Your task to perform on an android device: Go to eBay Image 0: 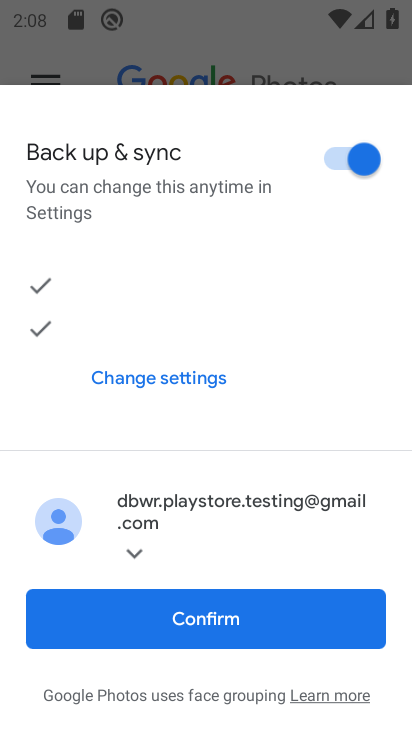
Step 0: press home button
Your task to perform on an android device: Go to eBay Image 1: 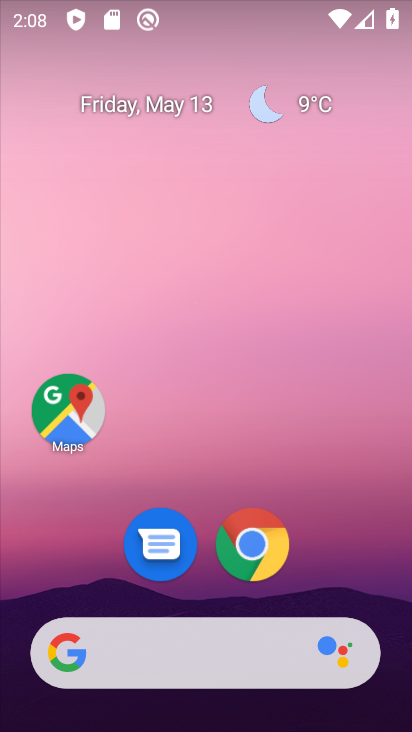
Step 1: drag from (180, 608) to (323, 151)
Your task to perform on an android device: Go to eBay Image 2: 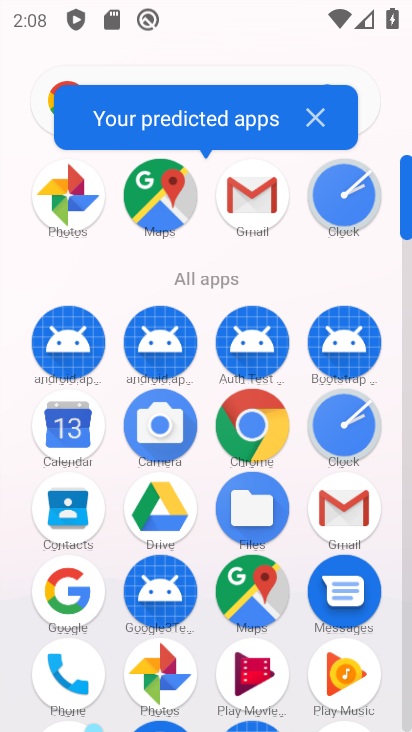
Step 2: drag from (179, 633) to (219, 489)
Your task to perform on an android device: Go to eBay Image 3: 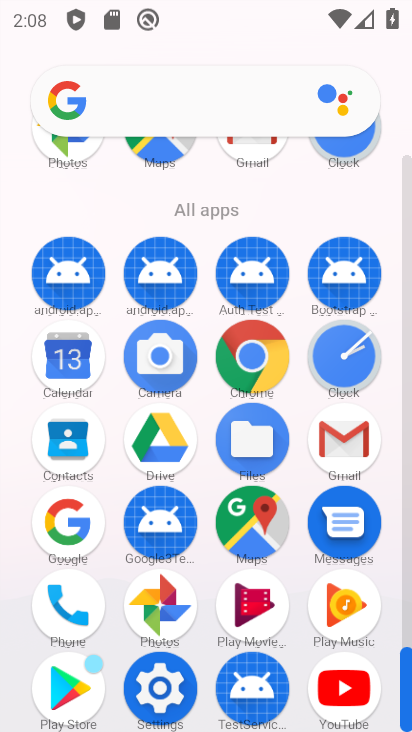
Step 3: click (244, 356)
Your task to perform on an android device: Go to eBay Image 4: 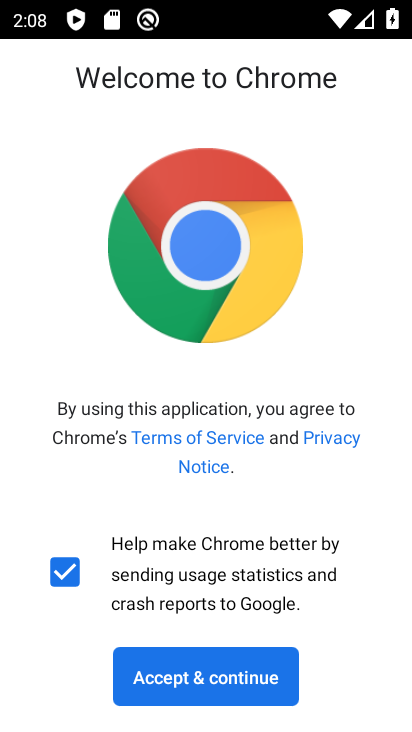
Step 4: click (248, 678)
Your task to perform on an android device: Go to eBay Image 5: 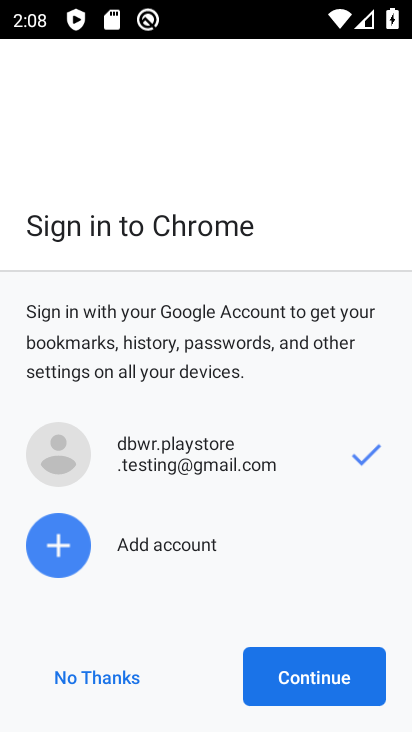
Step 5: click (317, 693)
Your task to perform on an android device: Go to eBay Image 6: 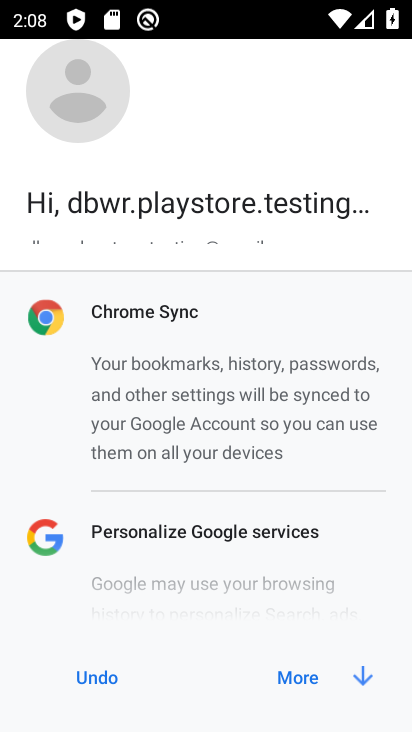
Step 6: click (317, 693)
Your task to perform on an android device: Go to eBay Image 7: 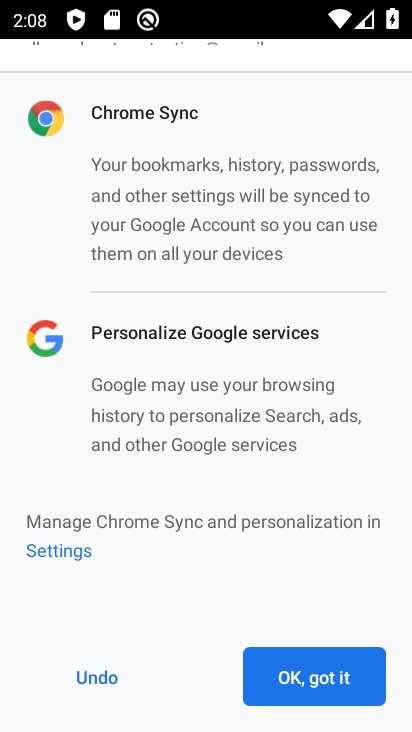
Step 7: click (334, 673)
Your task to perform on an android device: Go to eBay Image 8: 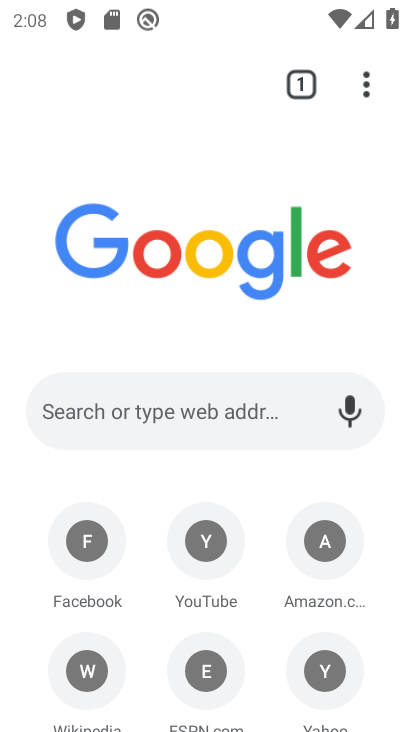
Step 8: drag from (204, 656) to (301, 463)
Your task to perform on an android device: Go to eBay Image 9: 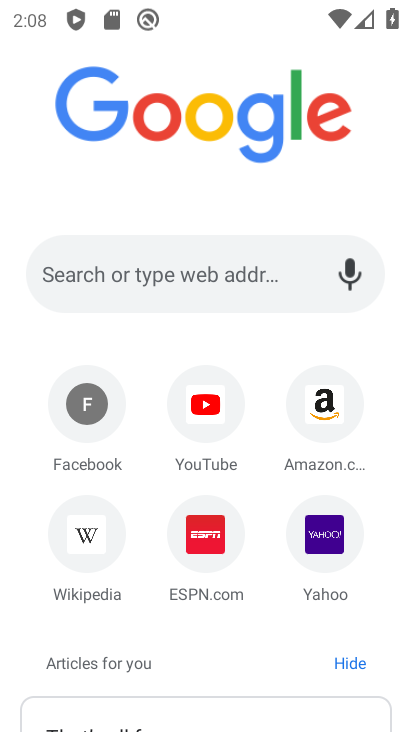
Step 9: click (190, 292)
Your task to perform on an android device: Go to eBay Image 10: 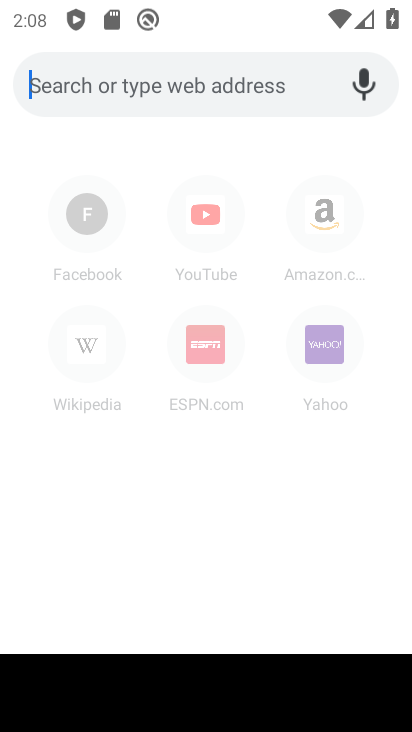
Step 10: type "eBay.com"
Your task to perform on an android device: Go to eBay Image 11: 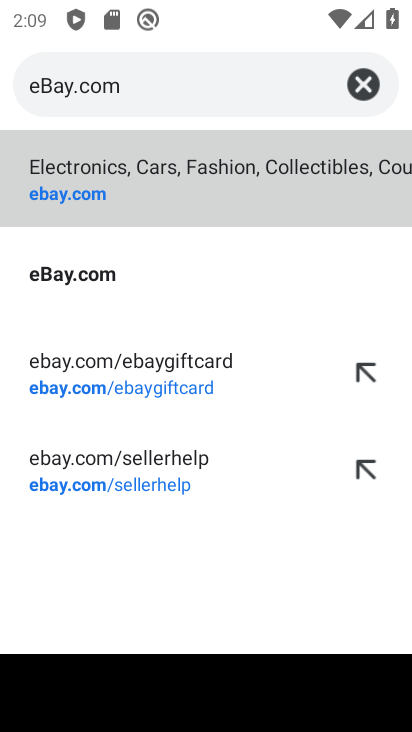
Step 11: click (247, 265)
Your task to perform on an android device: Go to eBay Image 12: 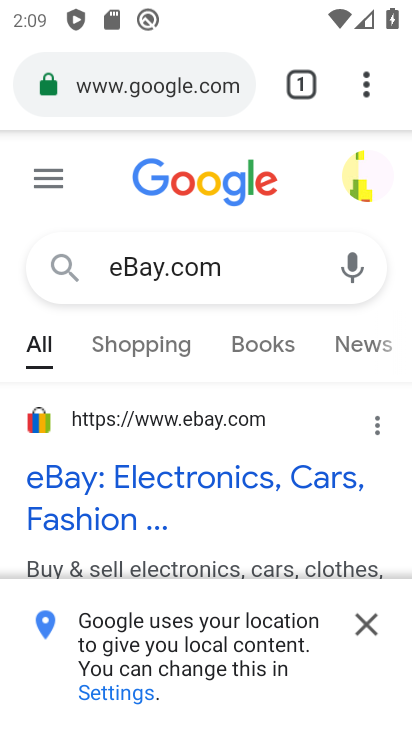
Step 12: click (87, 498)
Your task to perform on an android device: Go to eBay Image 13: 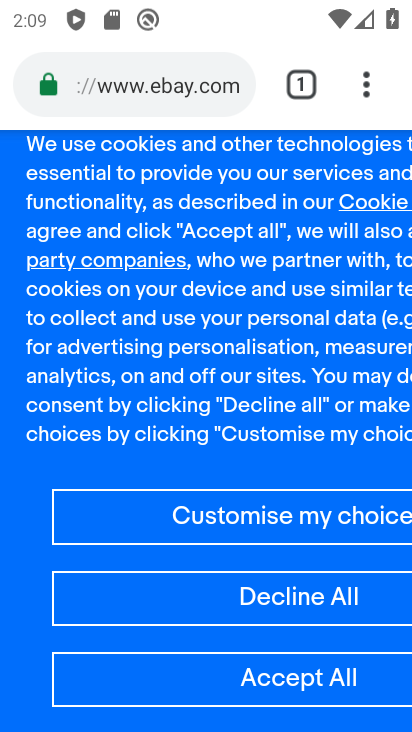
Step 13: click (290, 693)
Your task to perform on an android device: Go to eBay Image 14: 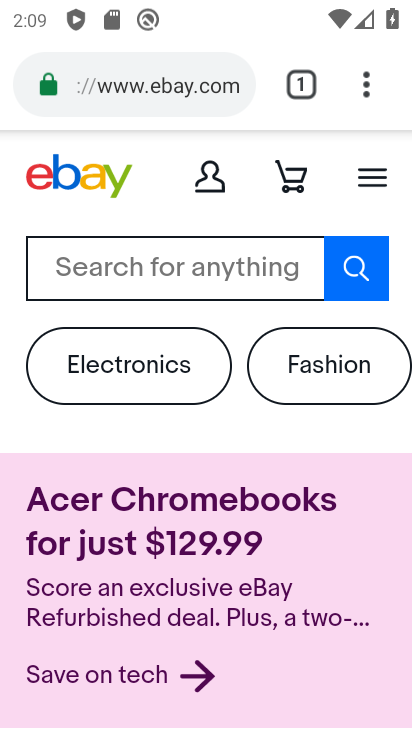
Step 14: task complete